Your task to perform on an android device: turn pop-ups on in chrome Image 0: 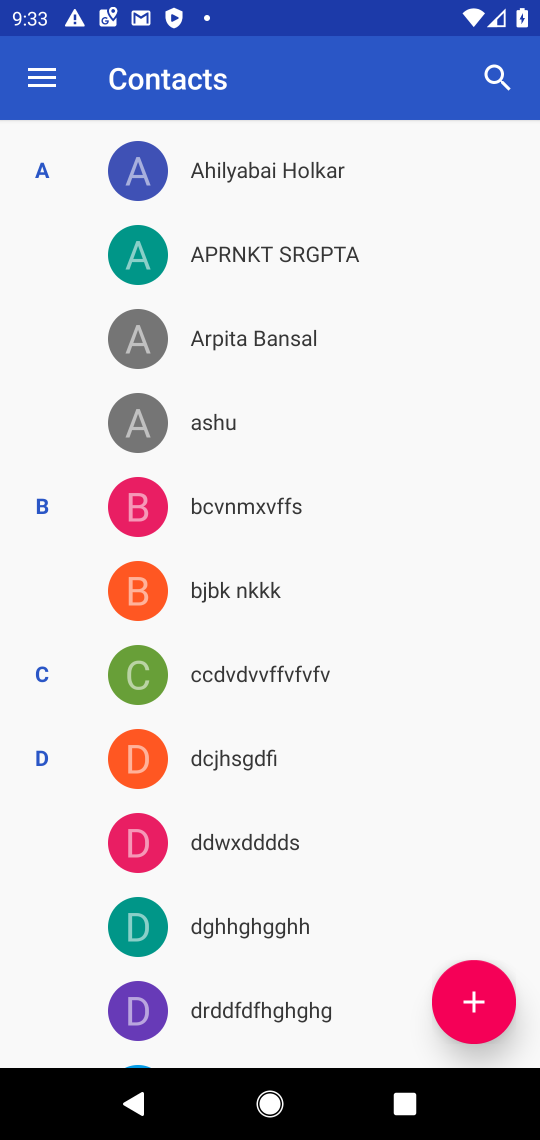
Step 0: press home button
Your task to perform on an android device: turn pop-ups on in chrome Image 1: 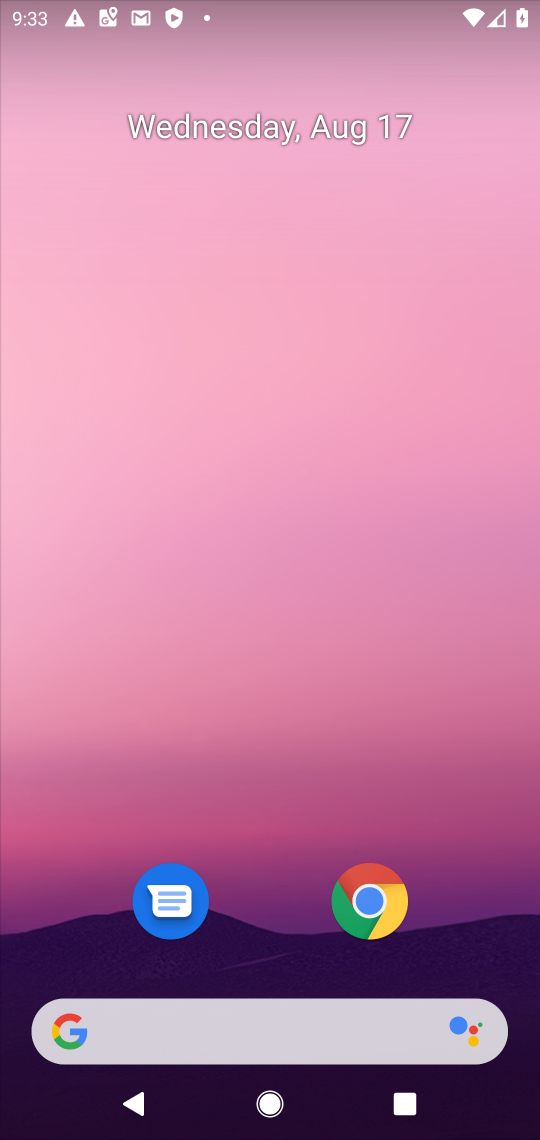
Step 1: drag from (287, 918) to (325, 80)
Your task to perform on an android device: turn pop-ups on in chrome Image 2: 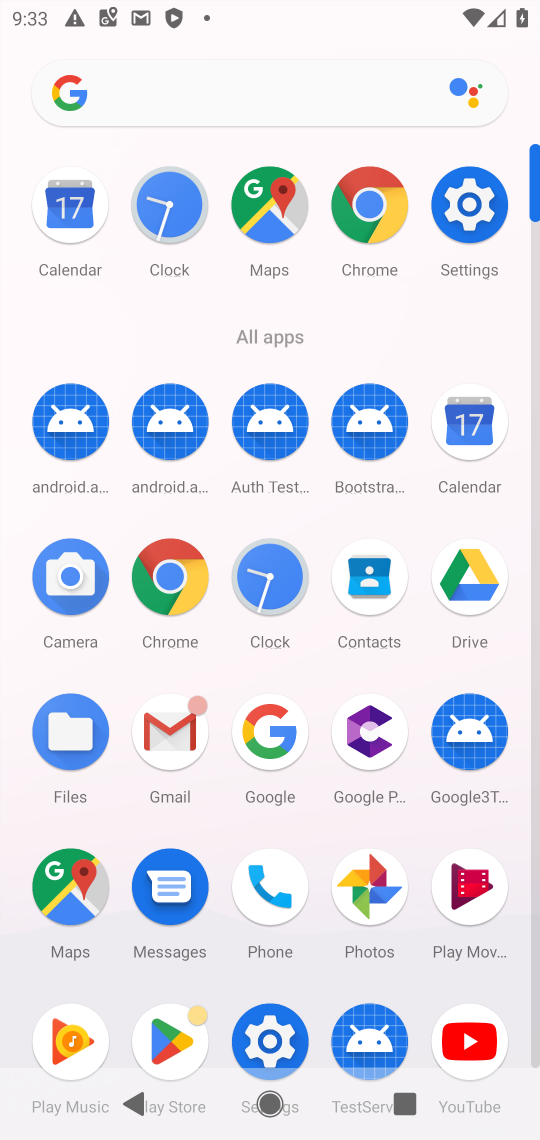
Step 2: click (167, 572)
Your task to perform on an android device: turn pop-ups on in chrome Image 3: 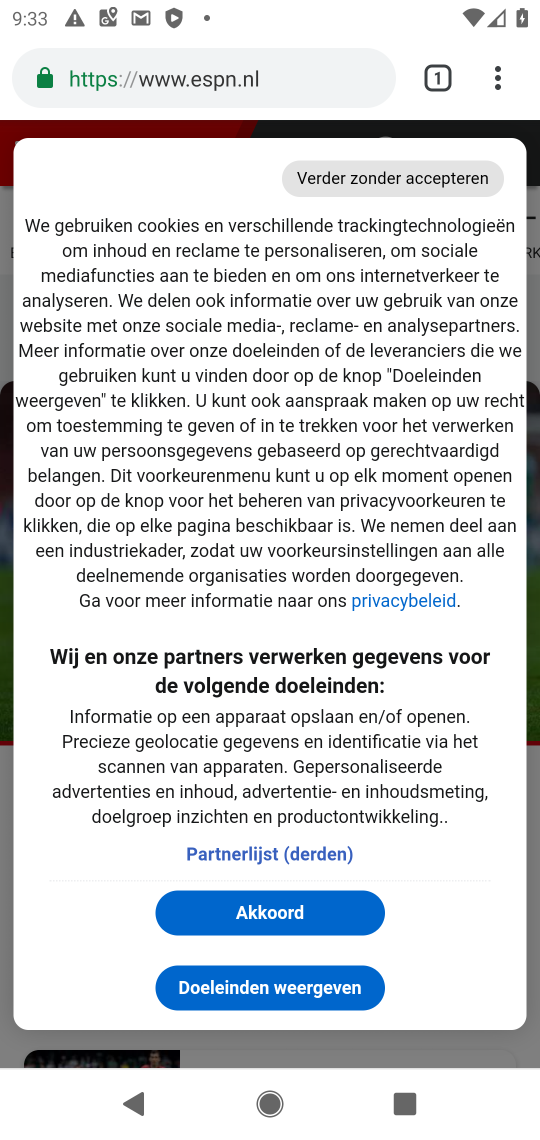
Step 3: drag from (512, 70) to (241, 883)
Your task to perform on an android device: turn pop-ups on in chrome Image 4: 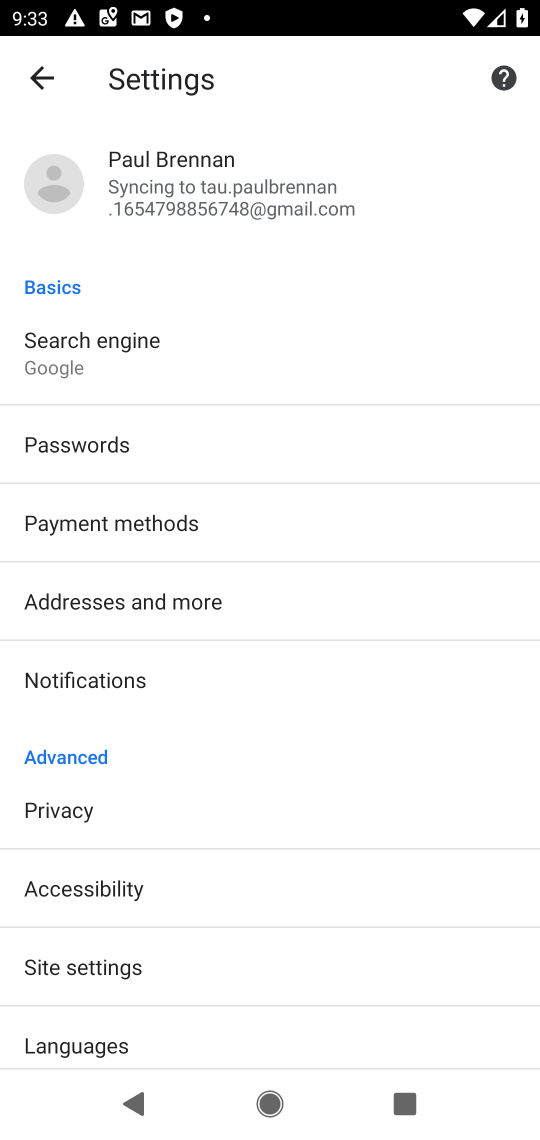
Step 4: click (183, 966)
Your task to perform on an android device: turn pop-ups on in chrome Image 5: 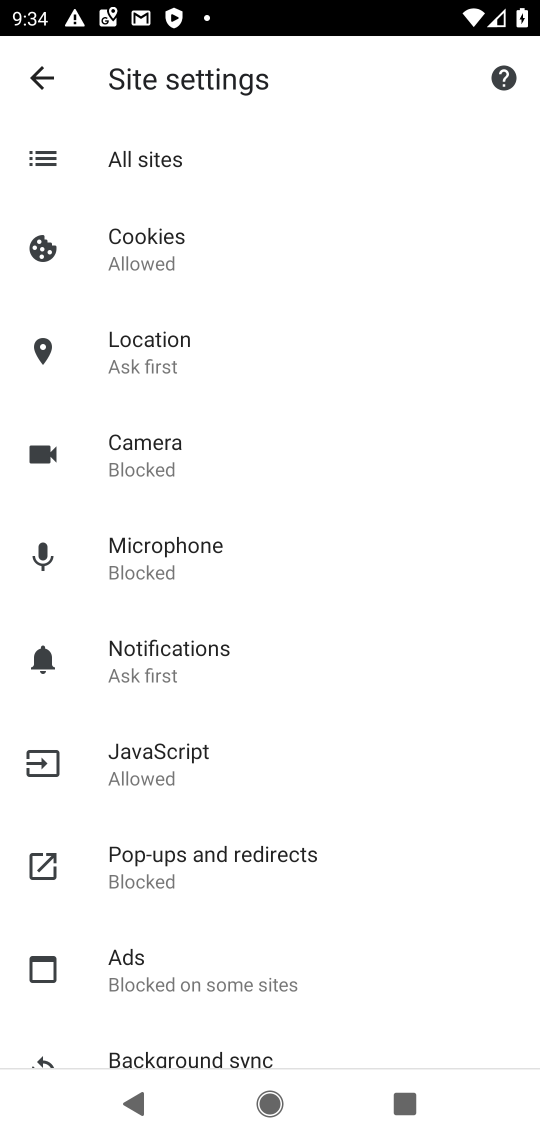
Step 5: click (157, 878)
Your task to perform on an android device: turn pop-ups on in chrome Image 6: 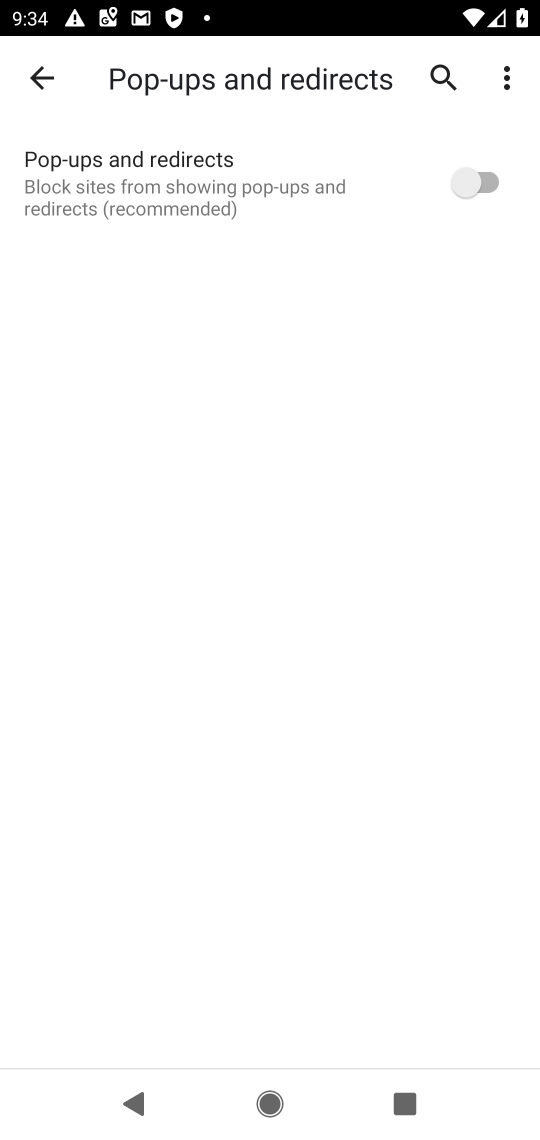
Step 6: click (386, 181)
Your task to perform on an android device: turn pop-ups on in chrome Image 7: 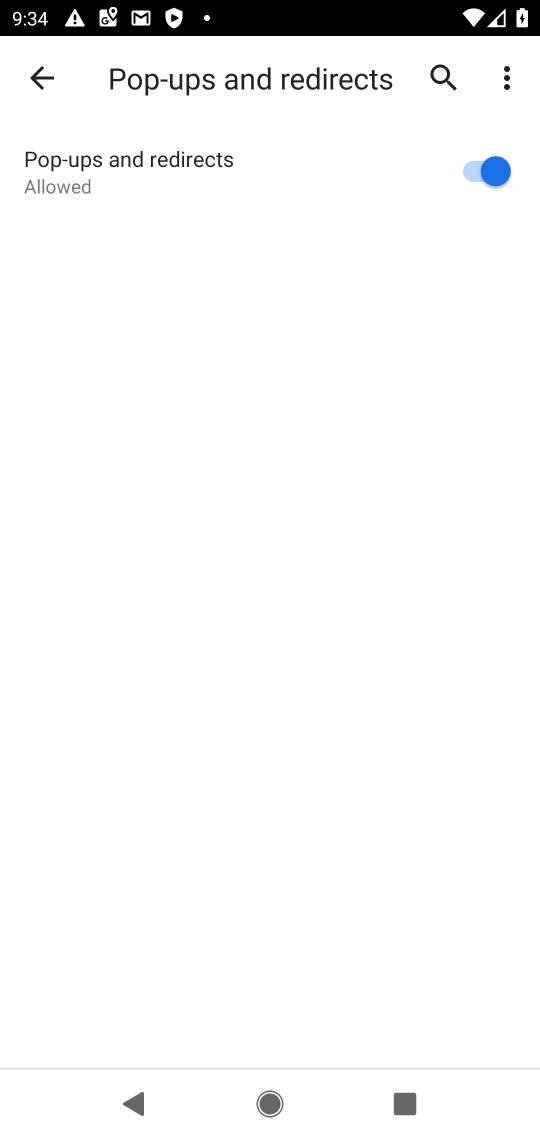
Step 7: task complete